Your task to perform on an android device: open app "YouTube Kids" (install if not already installed) Image 0: 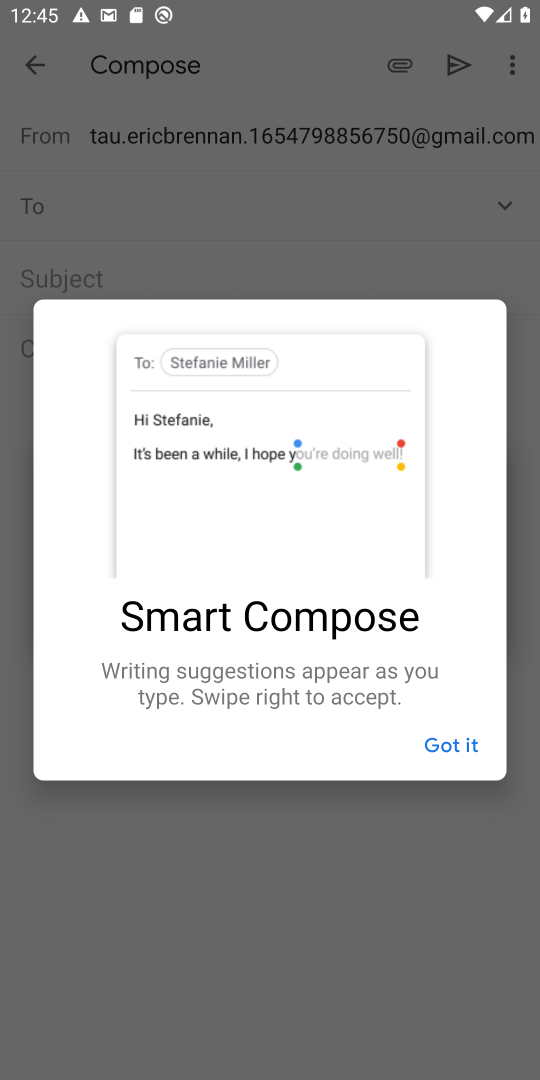
Step 0: press home button
Your task to perform on an android device: open app "YouTube Kids" (install if not already installed) Image 1: 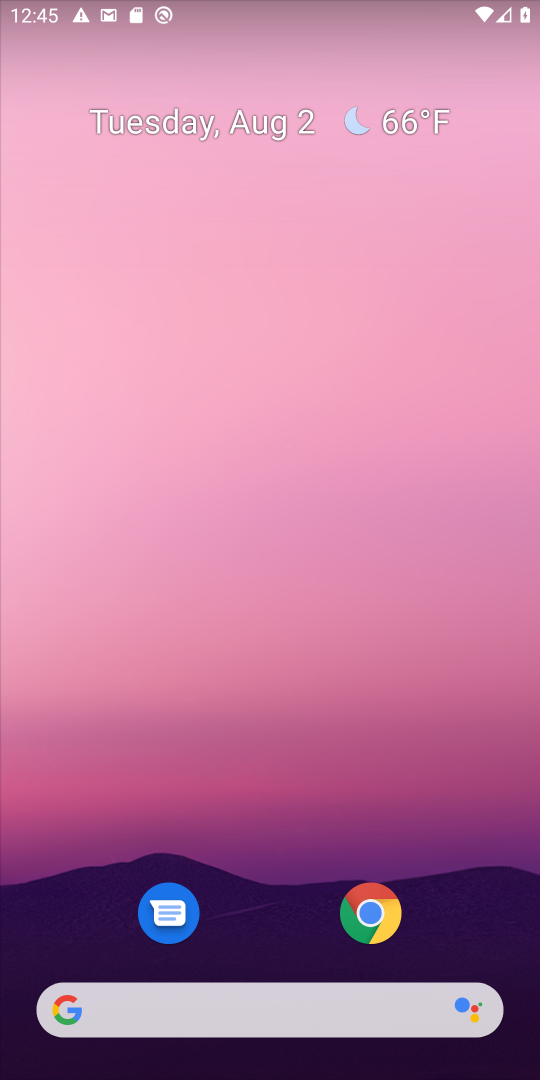
Step 1: drag from (518, 1029) to (443, 116)
Your task to perform on an android device: open app "YouTube Kids" (install if not already installed) Image 2: 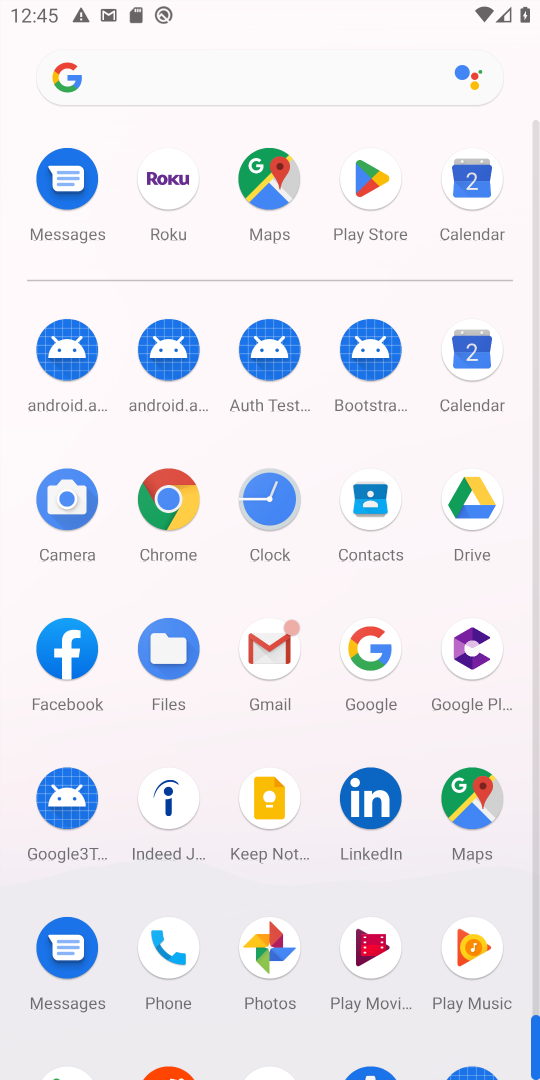
Step 2: drag from (399, 999) to (389, 491)
Your task to perform on an android device: open app "YouTube Kids" (install if not already installed) Image 3: 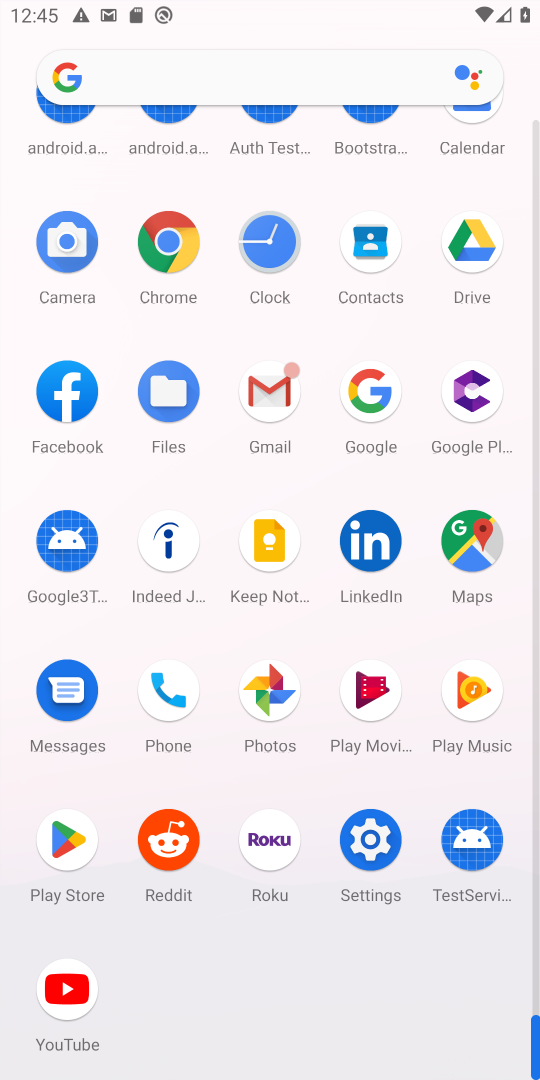
Step 3: click (58, 829)
Your task to perform on an android device: open app "YouTube Kids" (install if not already installed) Image 4: 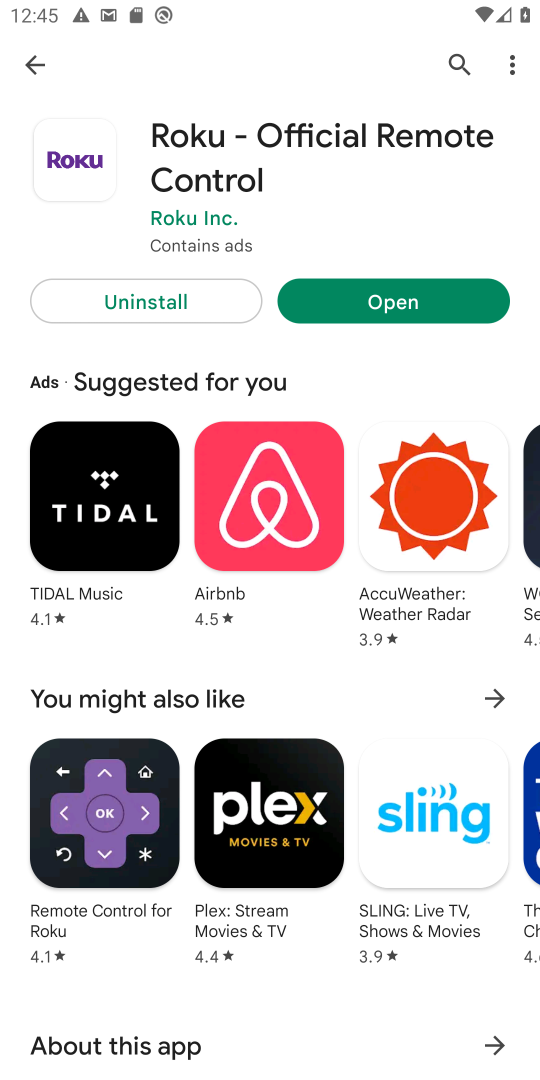
Step 4: click (460, 55)
Your task to perform on an android device: open app "YouTube Kids" (install if not already installed) Image 5: 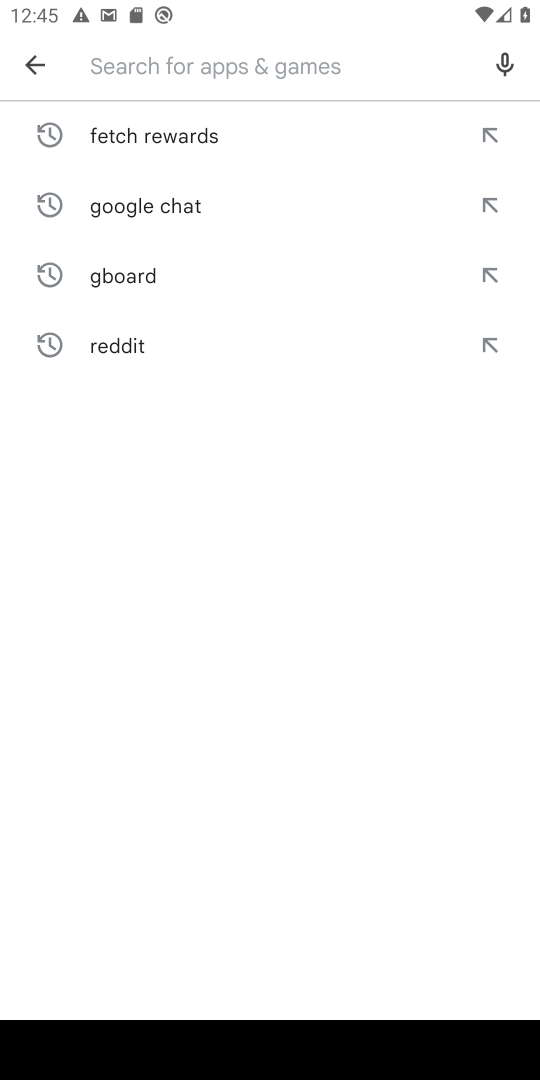
Step 5: type "YouTube Kids"
Your task to perform on an android device: open app "YouTube Kids" (install if not already installed) Image 6: 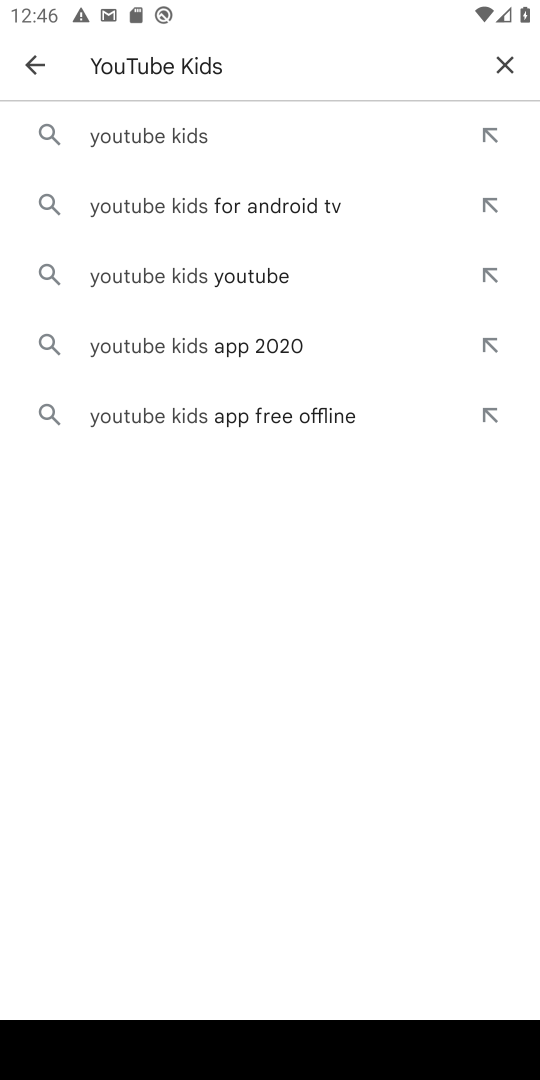
Step 6: click (173, 132)
Your task to perform on an android device: open app "YouTube Kids" (install if not already installed) Image 7: 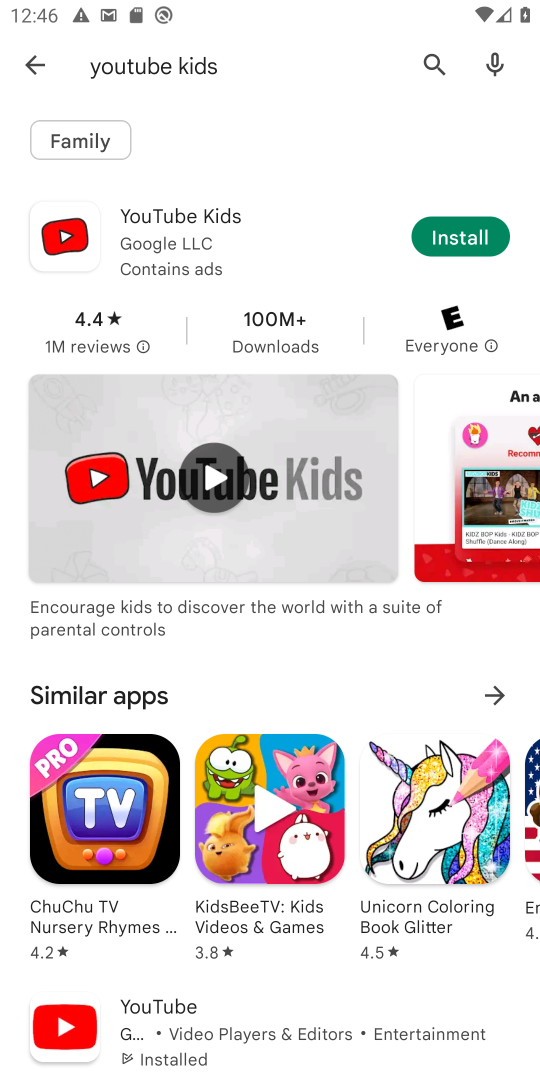
Step 7: click (435, 234)
Your task to perform on an android device: open app "YouTube Kids" (install if not already installed) Image 8: 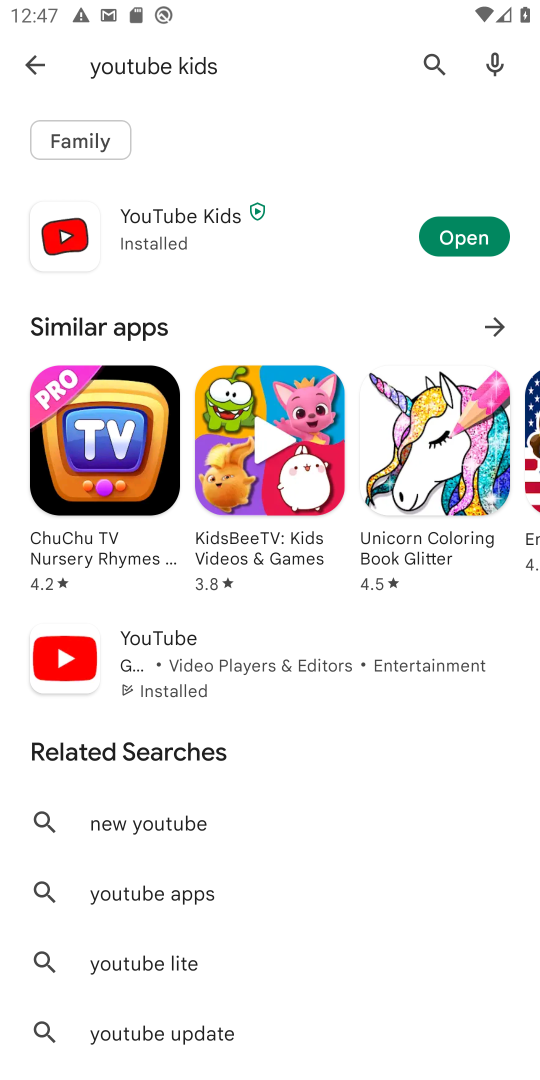
Step 8: click (465, 232)
Your task to perform on an android device: open app "YouTube Kids" (install if not already installed) Image 9: 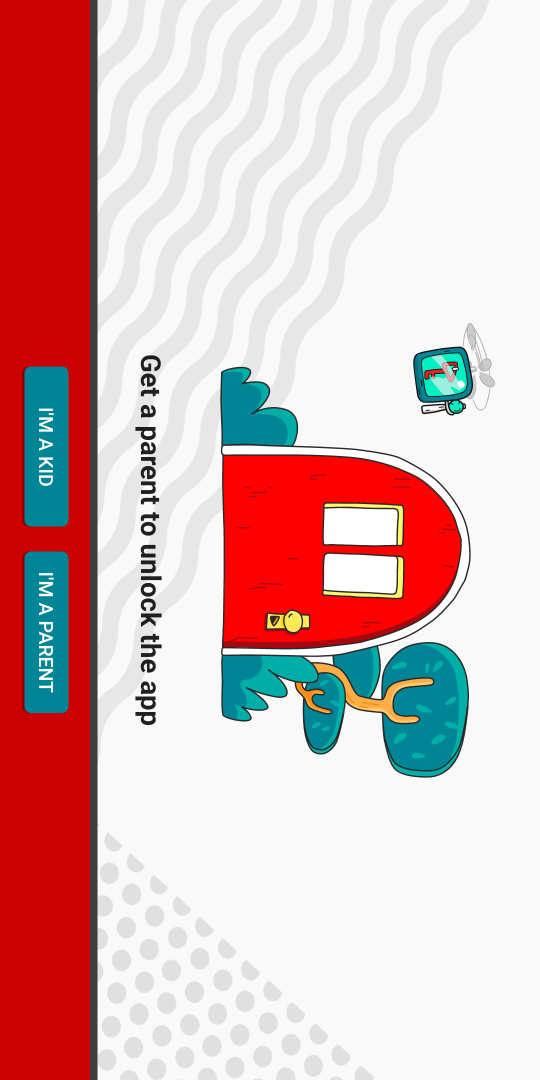
Step 9: task complete